Your task to perform on an android device: Open CNN.com Image 0: 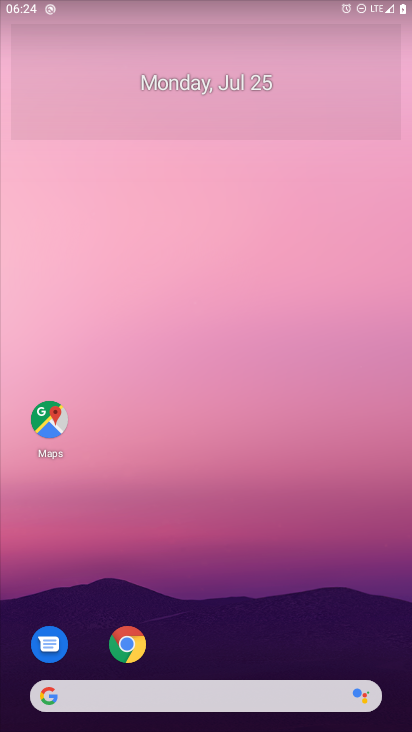
Step 0: press home button
Your task to perform on an android device: Open CNN.com Image 1: 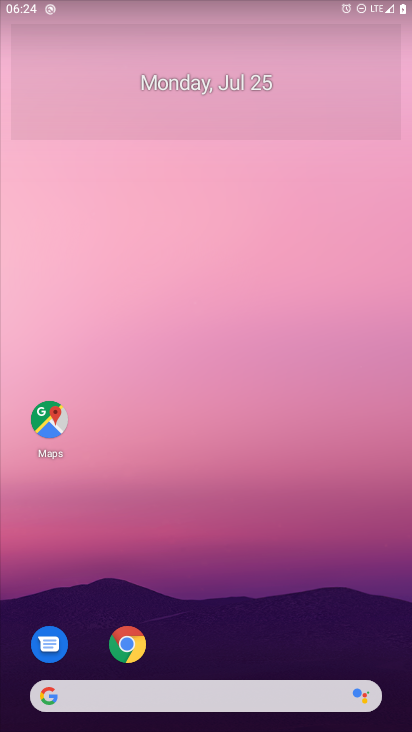
Step 1: click (41, 702)
Your task to perform on an android device: Open CNN.com Image 2: 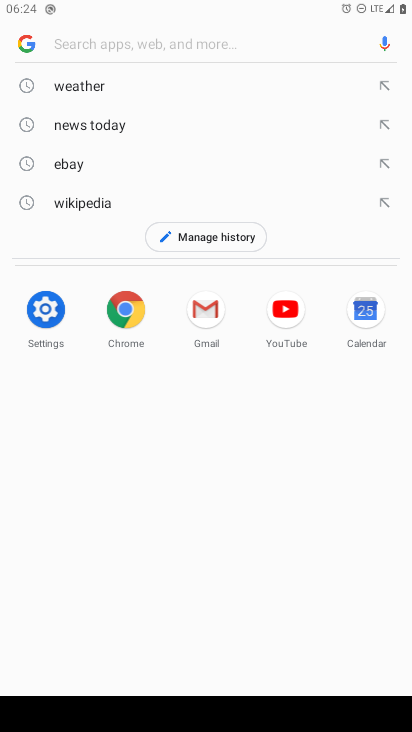
Step 2: type "CNN.com"
Your task to perform on an android device: Open CNN.com Image 3: 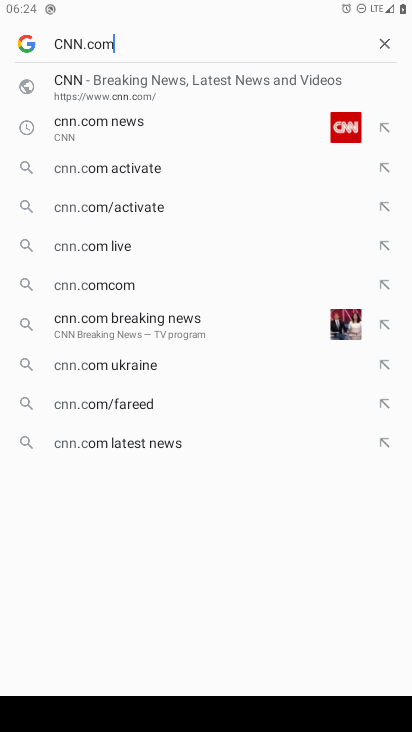
Step 3: press enter
Your task to perform on an android device: Open CNN.com Image 4: 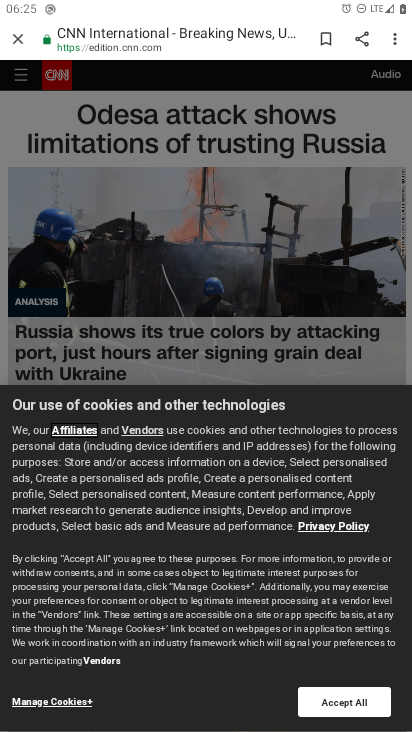
Step 4: task complete